Your task to perform on an android device: Open Google Image 0: 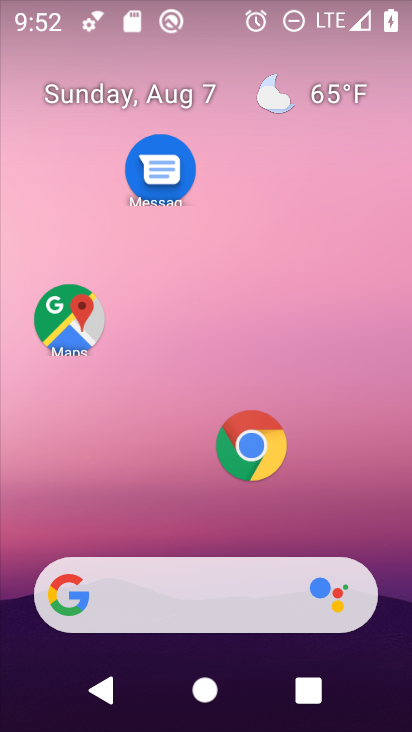
Step 0: press home button
Your task to perform on an android device: Open Google Image 1: 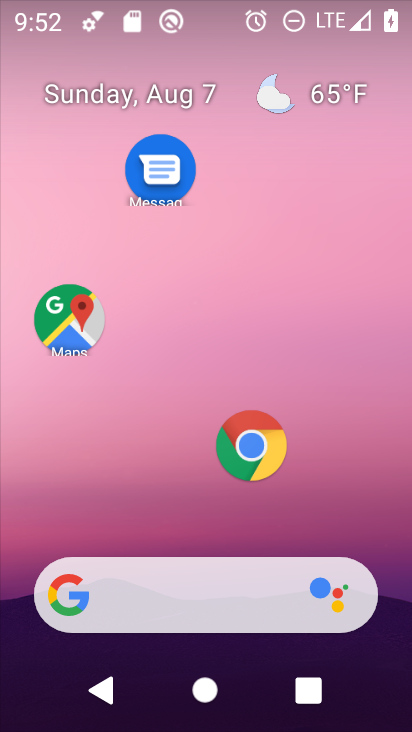
Step 1: click (249, 22)
Your task to perform on an android device: Open Google Image 2: 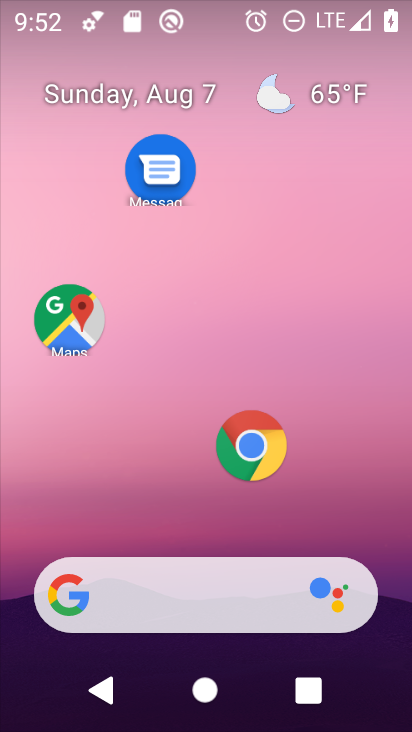
Step 2: drag from (199, 529) to (212, 142)
Your task to perform on an android device: Open Google Image 3: 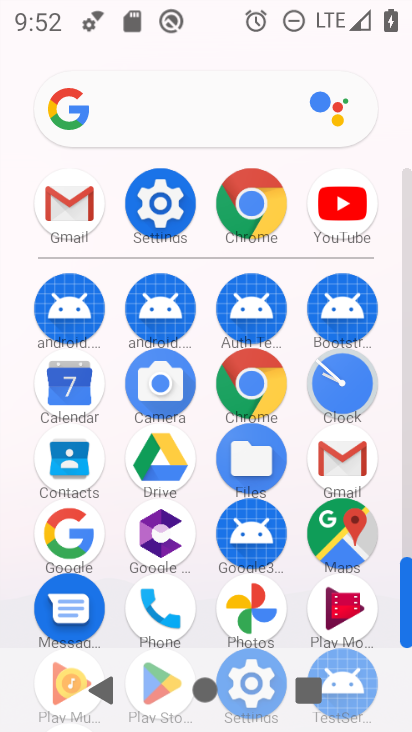
Step 3: click (61, 523)
Your task to perform on an android device: Open Google Image 4: 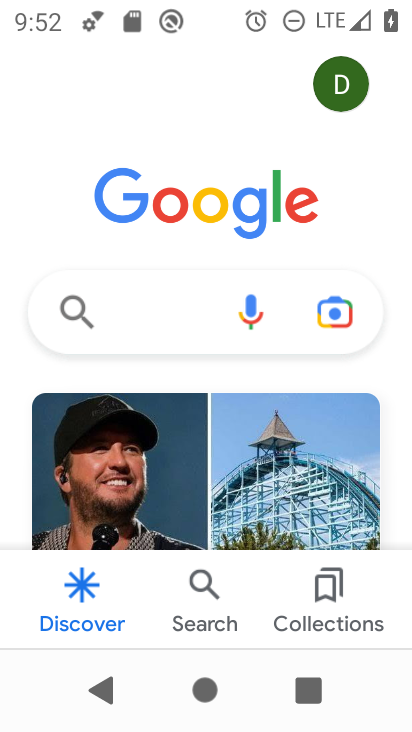
Step 4: drag from (261, 505) to (268, 376)
Your task to perform on an android device: Open Google Image 5: 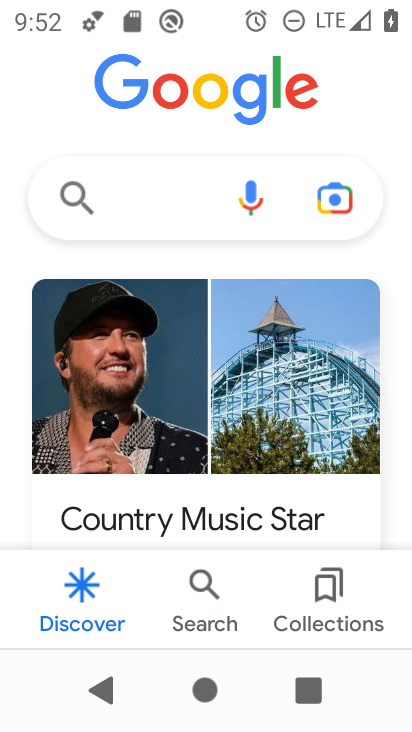
Step 5: click (251, 265)
Your task to perform on an android device: Open Google Image 6: 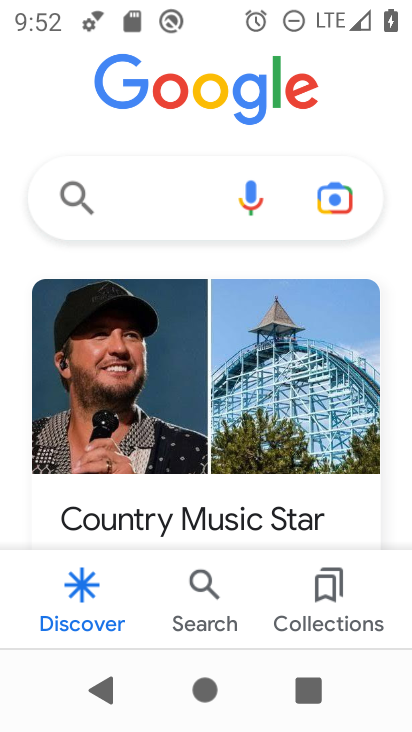
Step 6: click (330, 592)
Your task to perform on an android device: Open Google Image 7: 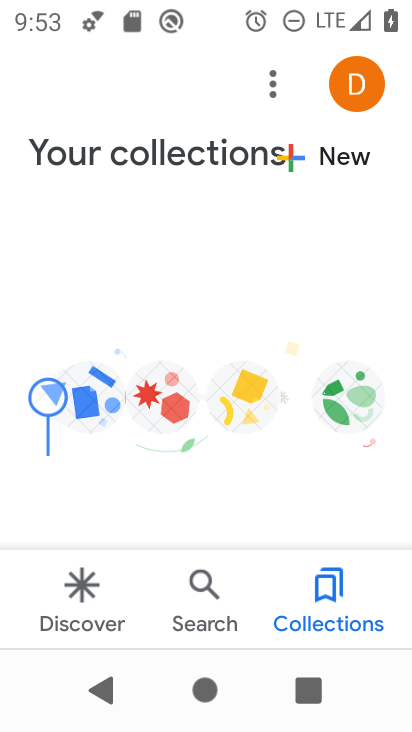
Step 7: click (200, 599)
Your task to perform on an android device: Open Google Image 8: 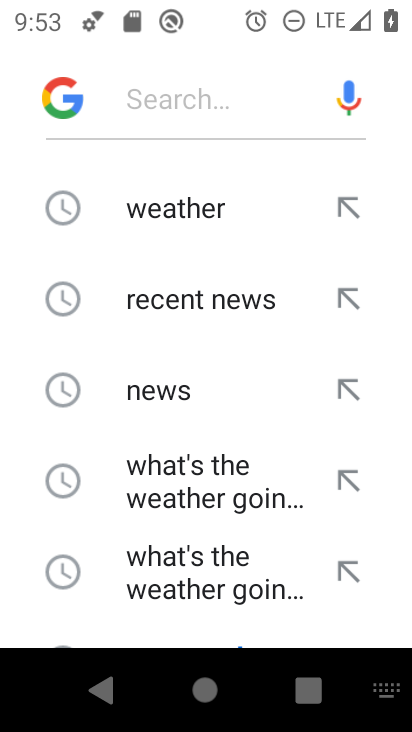
Step 8: click (347, 93)
Your task to perform on an android device: Open Google Image 9: 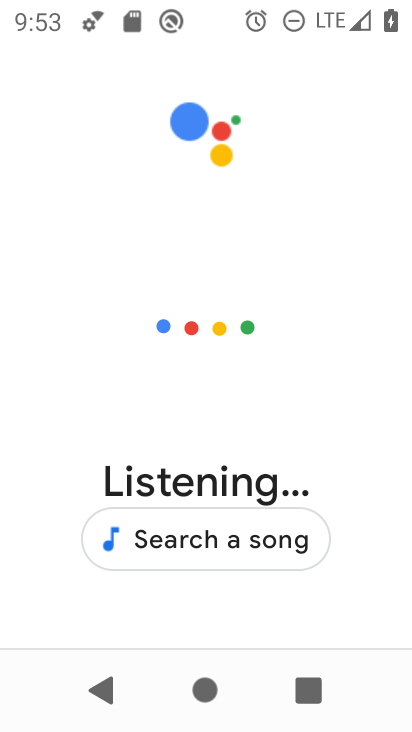
Step 9: click (159, 533)
Your task to perform on an android device: Open Google Image 10: 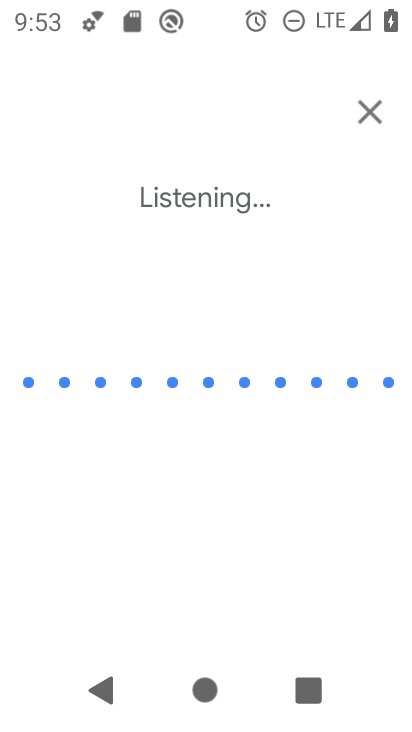
Step 10: task complete